Your task to perform on an android device: turn on priority inbox in the gmail app Image 0: 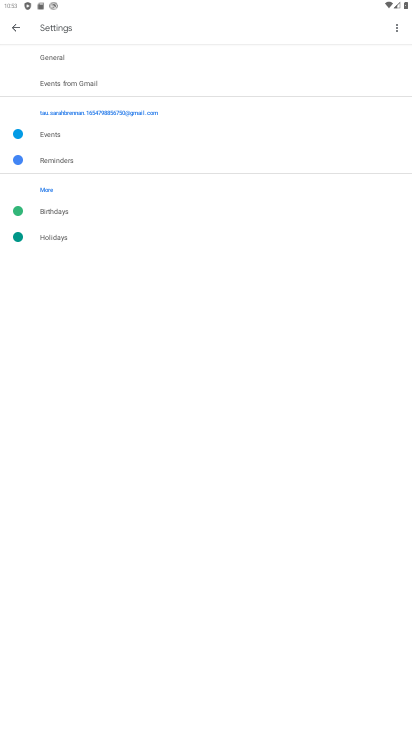
Step 0: press home button
Your task to perform on an android device: turn on priority inbox in the gmail app Image 1: 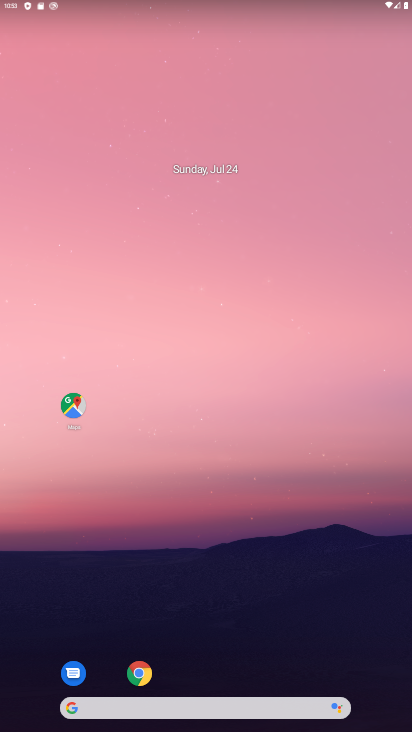
Step 1: drag from (188, 595) to (173, 223)
Your task to perform on an android device: turn on priority inbox in the gmail app Image 2: 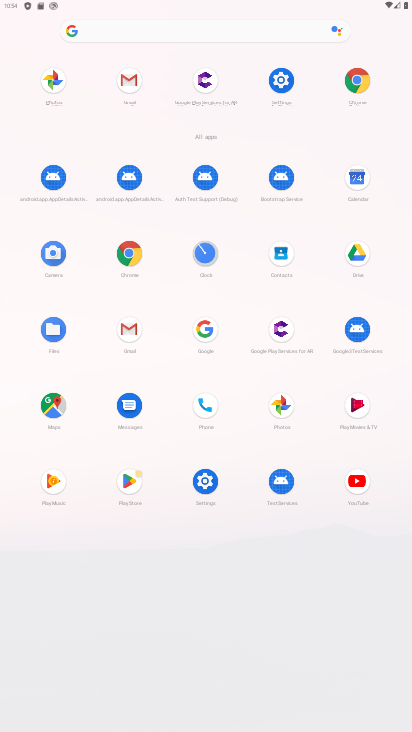
Step 2: click (114, 81)
Your task to perform on an android device: turn on priority inbox in the gmail app Image 3: 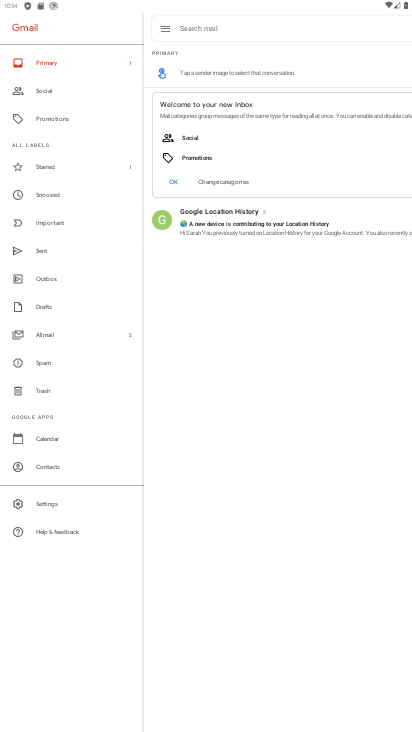
Step 3: click (52, 506)
Your task to perform on an android device: turn on priority inbox in the gmail app Image 4: 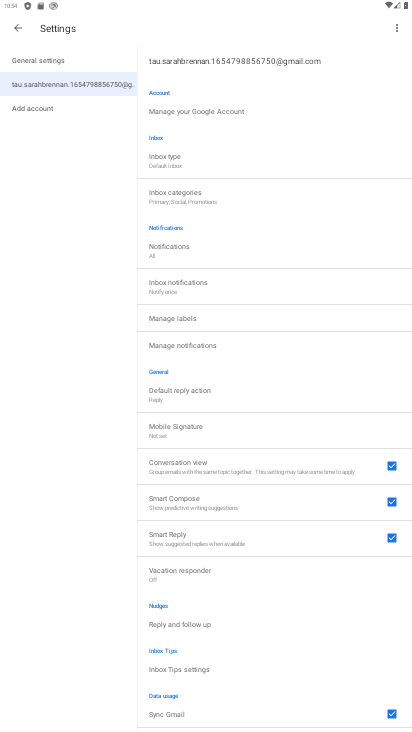
Step 4: click (172, 165)
Your task to perform on an android device: turn on priority inbox in the gmail app Image 5: 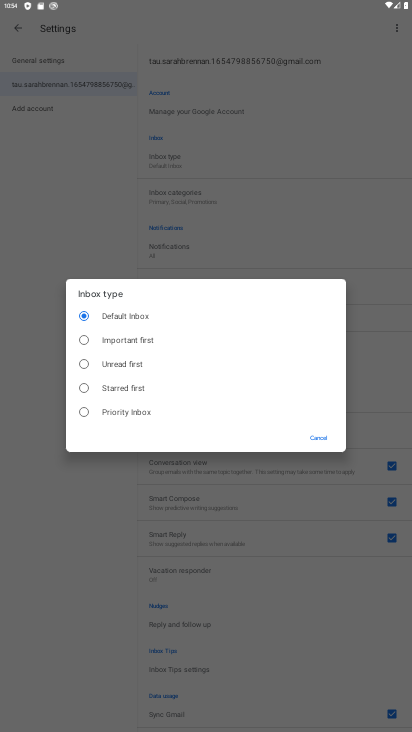
Step 5: click (100, 419)
Your task to perform on an android device: turn on priority inbox in the gmail app Image 6: 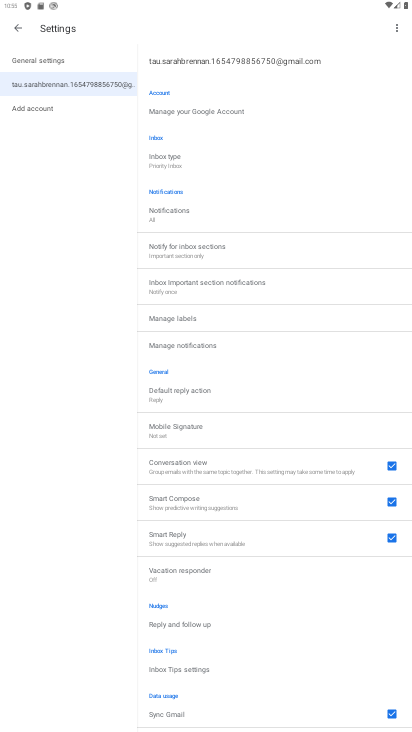
Step 6: task complete